Your task to perform on an android device: Open wifi settings Image 0: 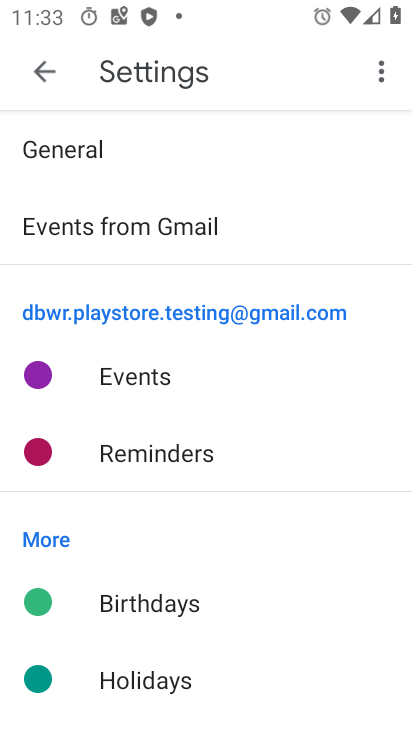
Step 0: press home button
Your task to perform on an android device: Open wifi settings Image 1: 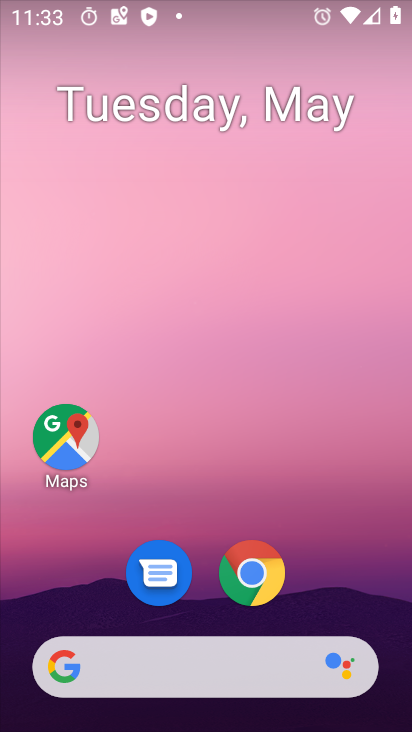
Step 1: drag from (258, 702) to (249, 289)
Your task to perform on an android device: Open wifi settings Image 2: 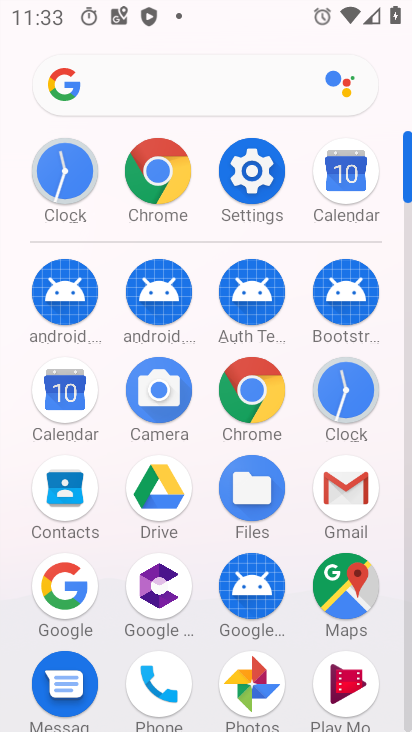
Step 2: click (227, 191)
Your task to perform on an android device: Open wifi settings Image 3: 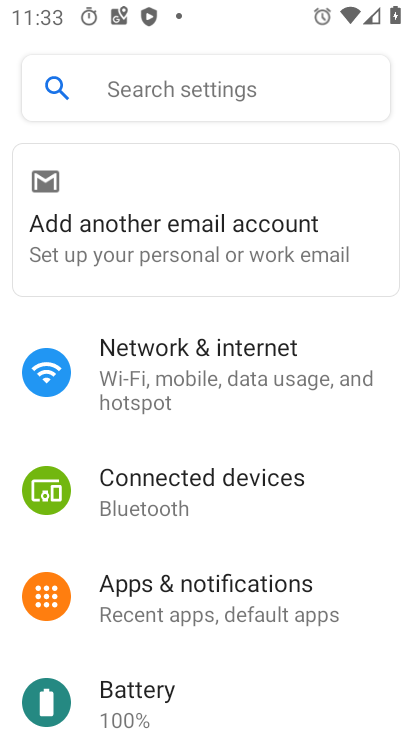
Step 3: click (145, 355)
Your task to perform on an android device: Open wifi settings Image 4: 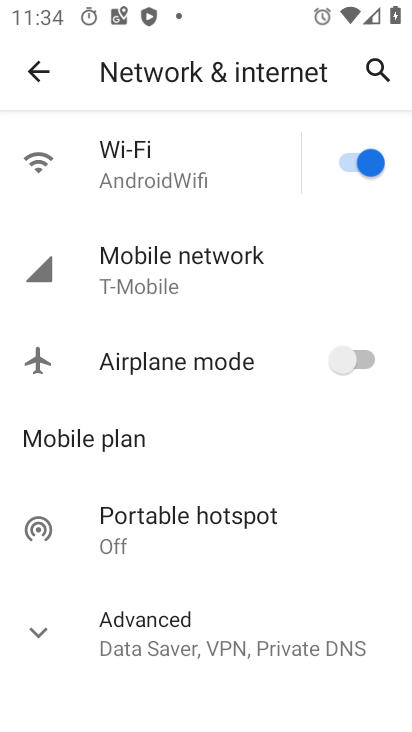
Step 4: click (141, 145)
Your task to perform on an android device: Open wifi settings Image 5: 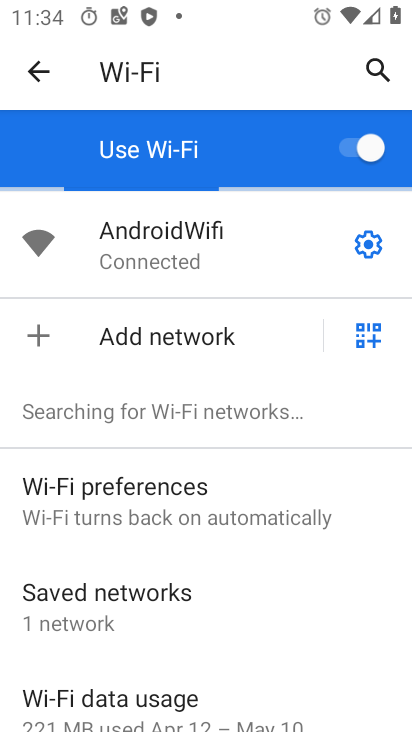
Step 5: task complete